Your task to perform on an android device: Open eBay Image 0: 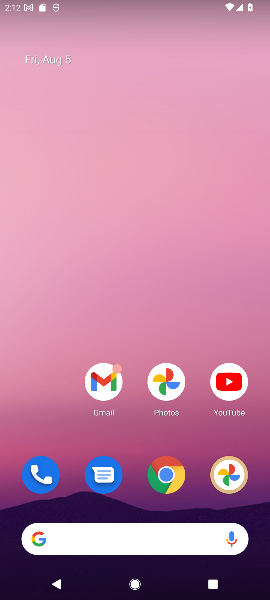
Step 0: click (163, 476)
Your task to perform on an android device: Open eBay Image 1: 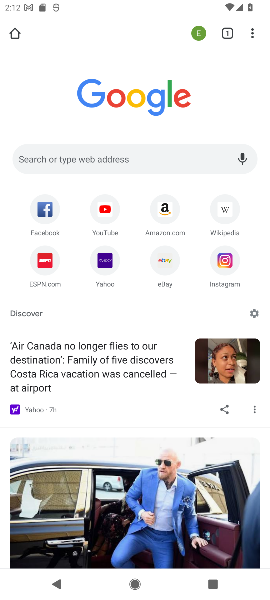
Step 1: click (109, 154)
Your task to perform on an android device: Open eBay Image 2: 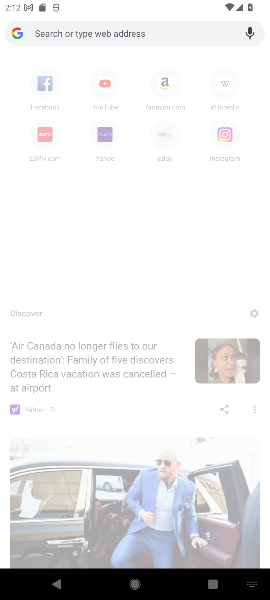
Step 2: type "eBay"
Your task to perform on an android device: Open eBay Image 3: 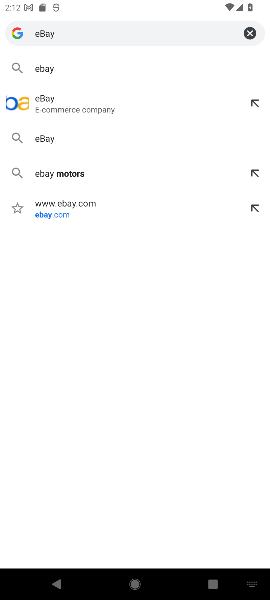
Step 3: click (41, 69)
Your task to perform on an android device: Open eBay Image 4: 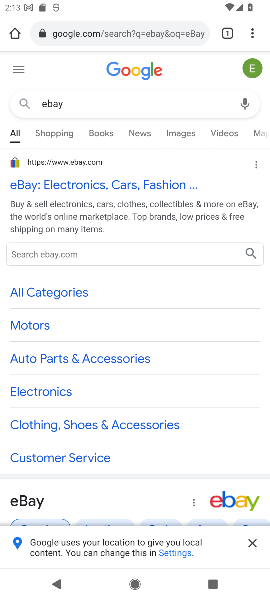
Step 4: task complete